Your task to perform on an android device: turn off smart reply in the gmail app Image 0: 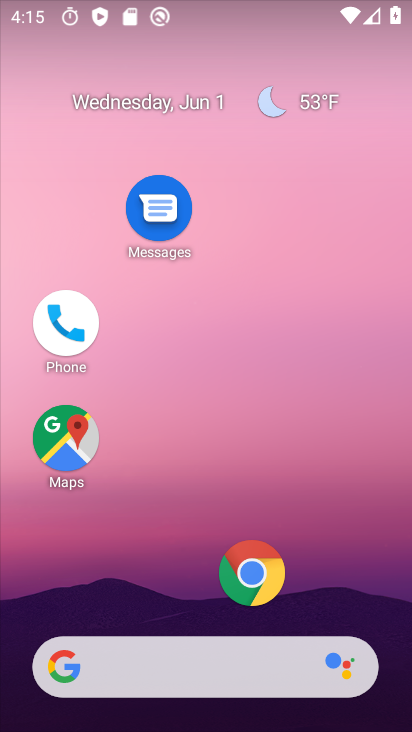
Step 0: drag from (159, 601) to (178, 47)
Your task to perform on an android device: turn off smart reply in the gmail app Image 1: 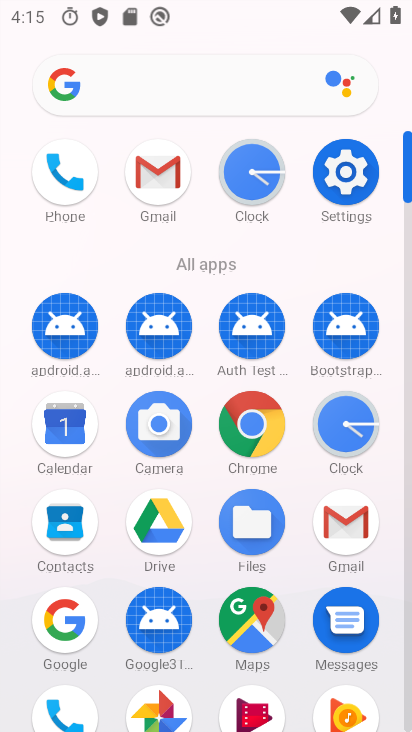
Step 1: click (143, 180)
Your task to perform on an android device: turn off smart reply in the gmail app Image 2: 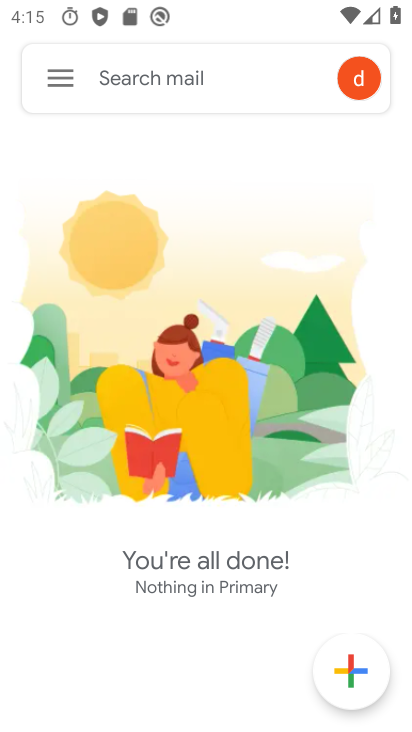
Step 2: click (60, 96)
Your task to perform on an android device: turn off smart reply in the gmail app Image 3: 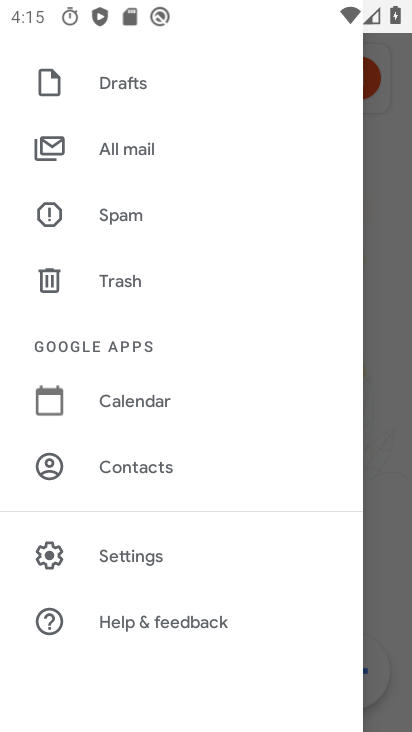
Step 3: click (141, 576)
Your task to perform on an android device: turn off smart reply in the gmail app Image 4: 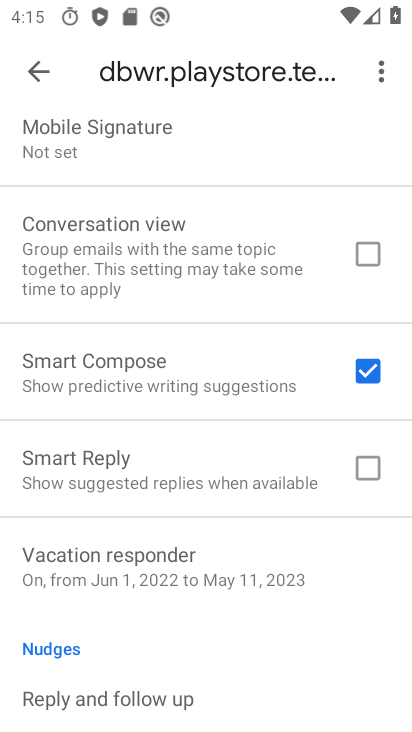
Step 4: task complete